Your task to perform on an android device: change text size in settings app Image 0: 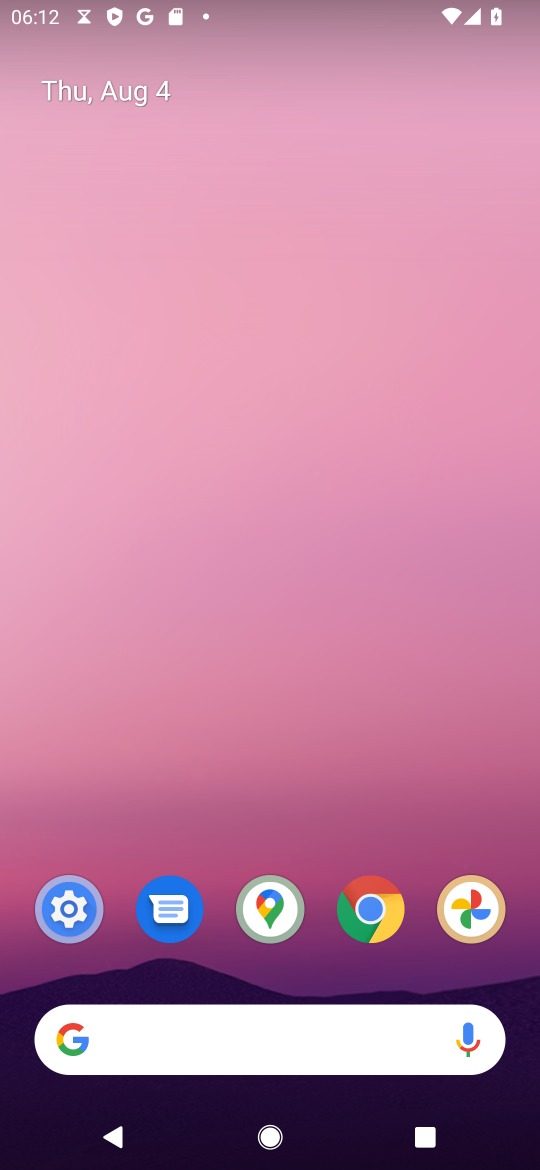
Step 0: drag from (272, 1047) to (385, 109)
Your task to perform on an android device: change text size in settings app Image 1: 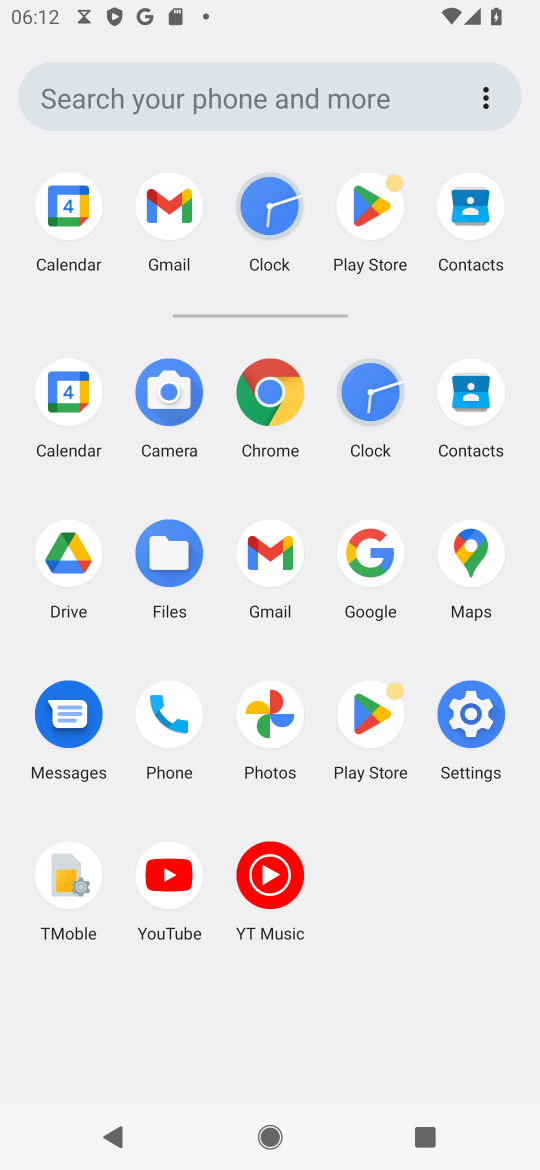
Step 1: click (473, 716)
Your task to perform on an android device: change text size in settings app Image 2: 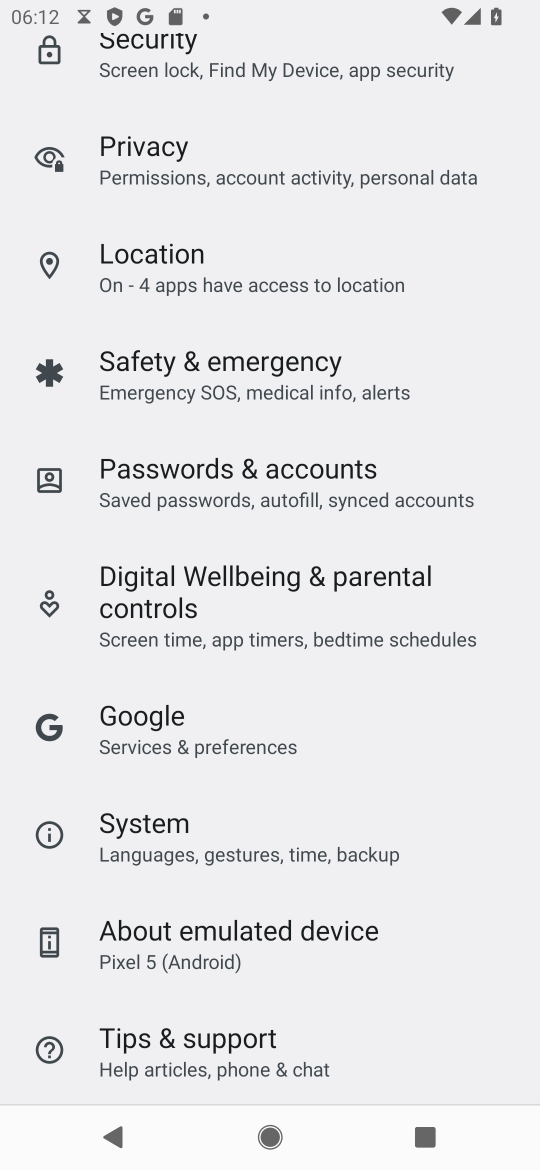
Step 2: drag from (329, 241) to (375, 1019)
Your task to perform on an android device: change text size in settings app Image 3: 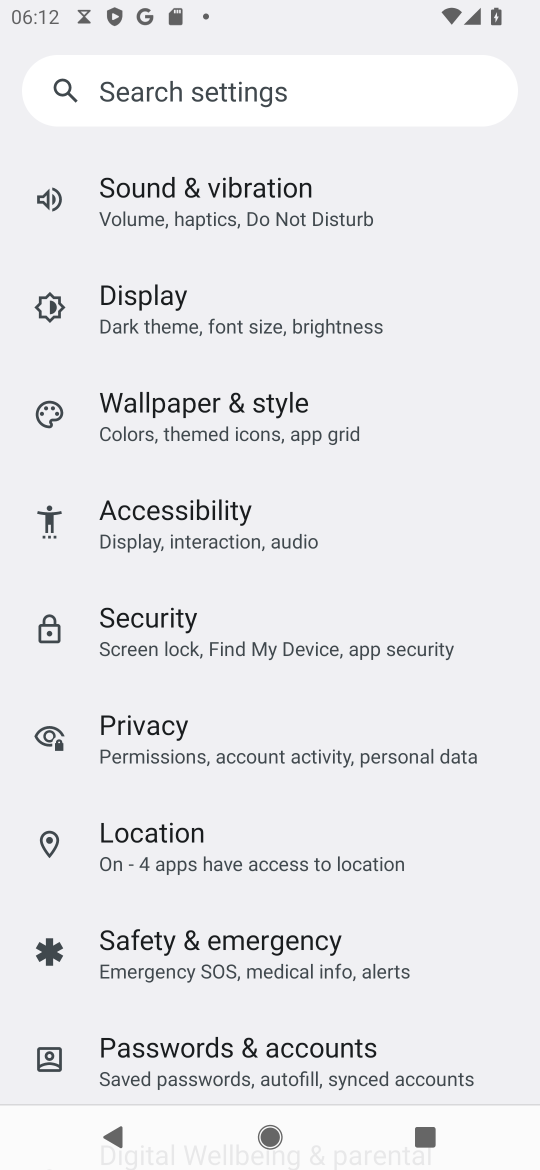
Step 3: click (253, 311)
Your task to perform on an android device: change text size in settings app Image 4: 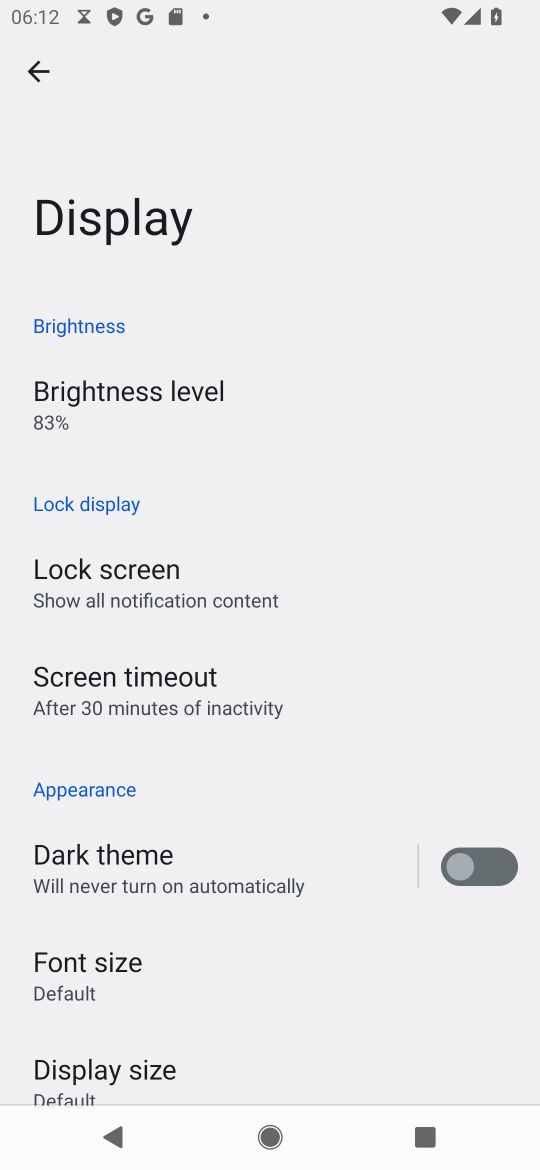
Step 4: click (94, 979)
Your task to perform on an android device: change text size in settings app Image 5: 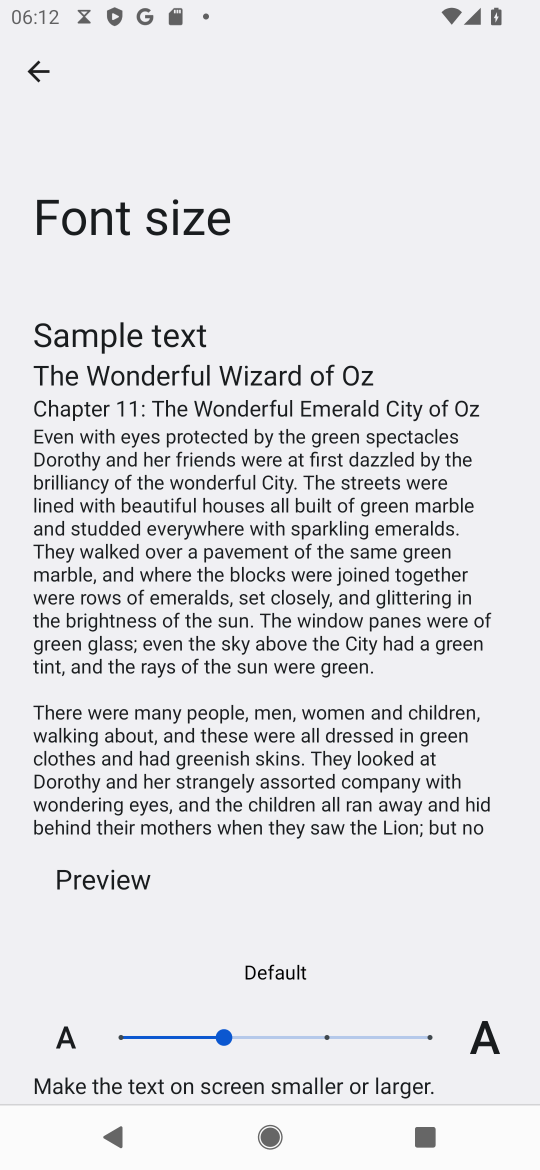
Step 5: click (325, 1036)
Your task to perform on an android device: change text size in settings app Image 6: 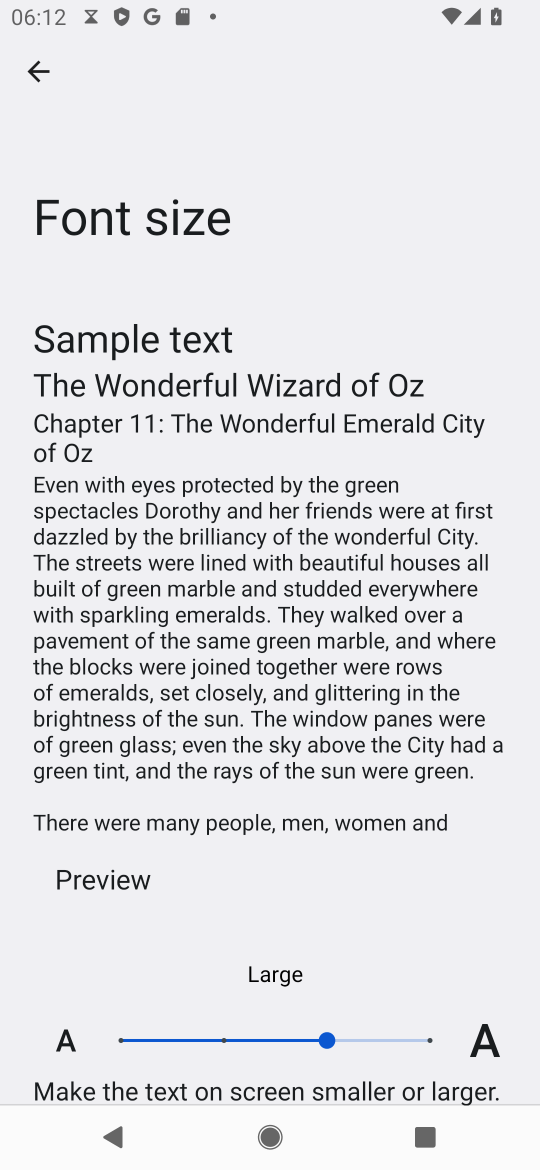
Step 6: task complete